Your task to perform on an android device: Go to battery settings Image 0: 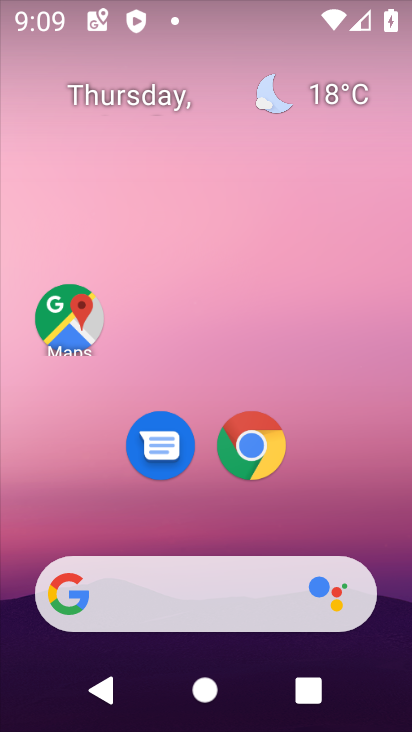
Step 0: drag from (387, 568) to (199, 121)
Your task to perform on an android device: Go to battery settings Image 1: 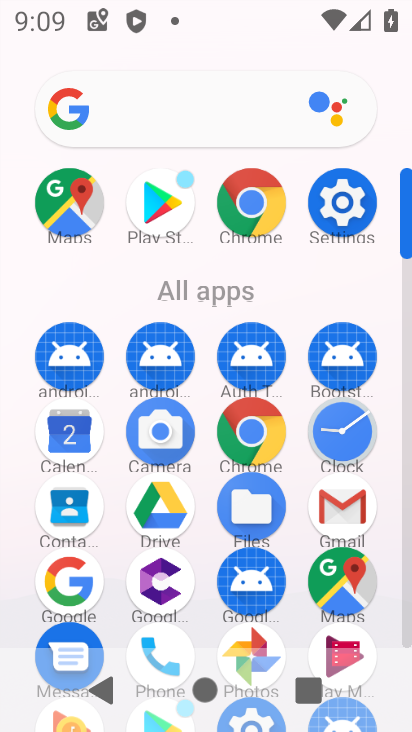
Step 1: click (357, 214)
Your task to perform on an android device: Go to battery settings Image 2: 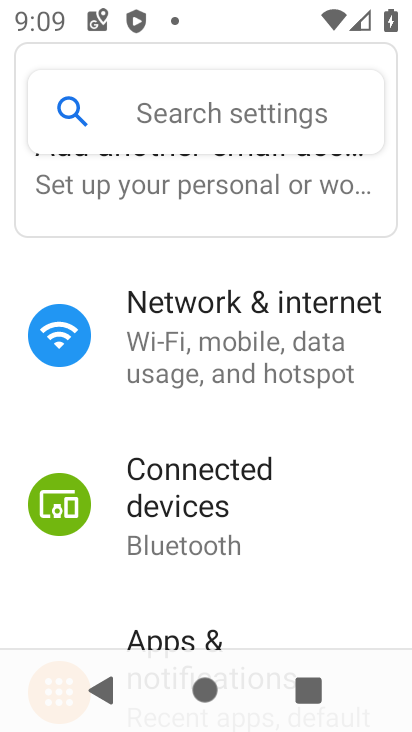
Step 2: drag from (269, 619) to (217, 252)
Your task to perform on an android device: Go to battery settings Image 3: 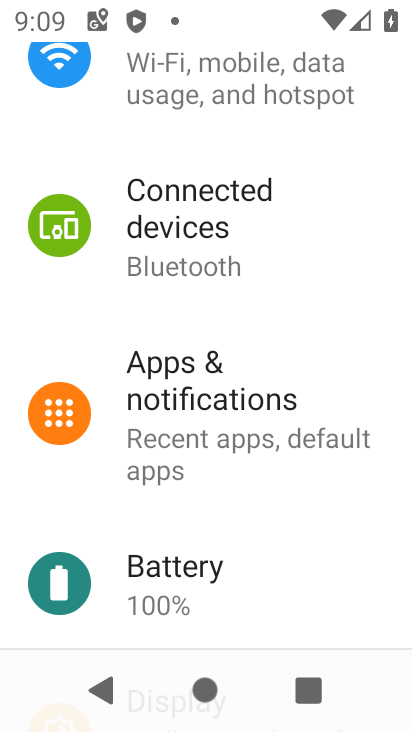
Step 3: click (214, 583)
Your task to perform on an android device: Go to battery settings Image 4: 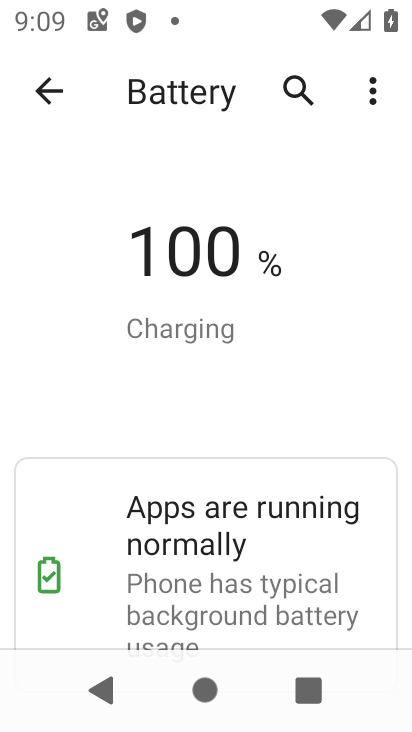
Step 4: task complete